Your task to perform on an android device: toggle show notifications on the lock screen Image 0: 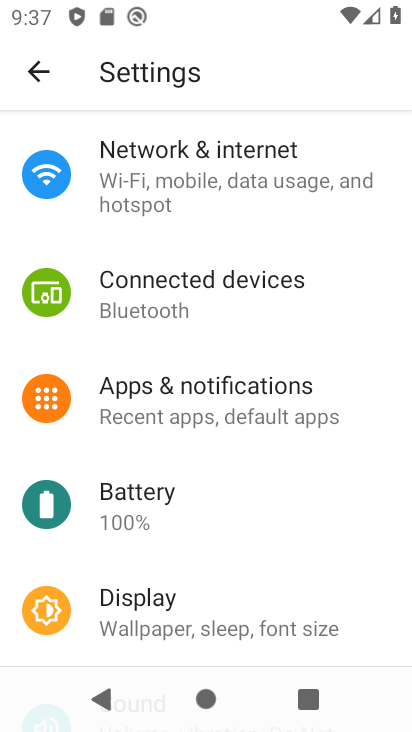
Step 0: click (219, 397)
Your task to perform on an android device: toggle show notifications on the lock screen Image 1: 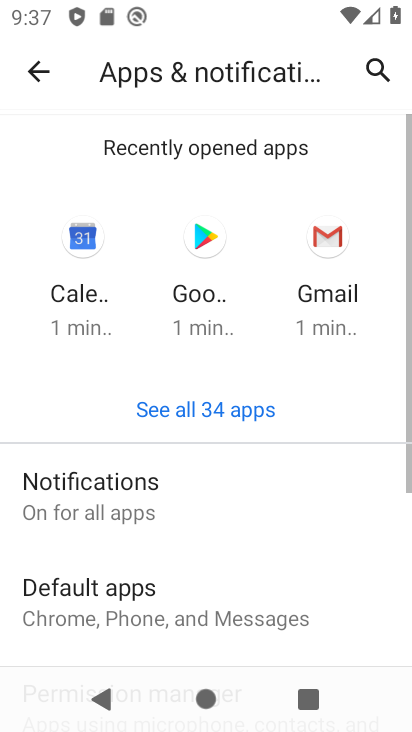
Step 1: drag from (224, 525) to (184, 349)
Your task to perform on an android device: toggle show notifications on the lock screen Image 2: 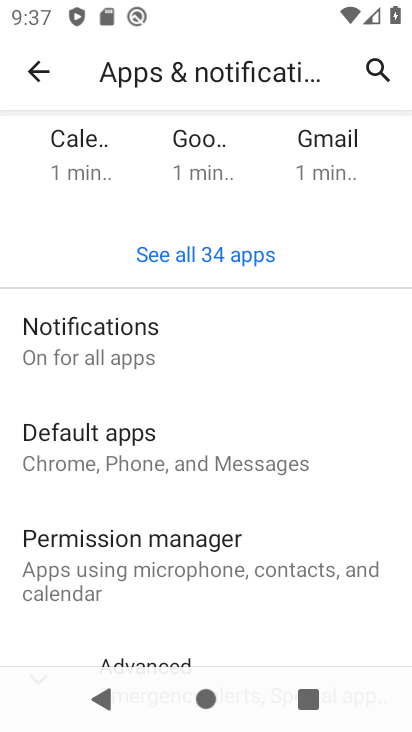
Step 2: click (101, 320)
Your task to perform on an android device: toggle show notifications on the lock screen Image 3: 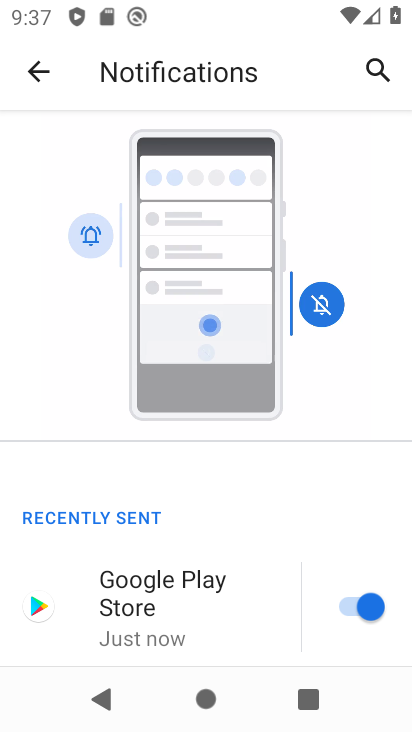
Step 3: drag from (199, 547) to (160, 239)
Your task to perform on an android device: toggle show notifications on the lock screen Image 4: 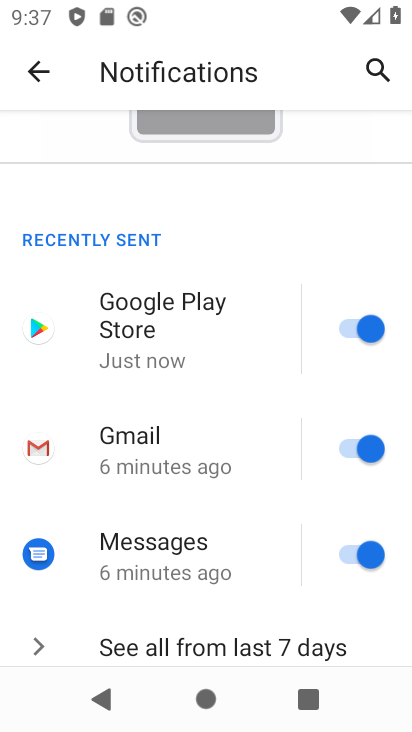
Step 4: drag from (235, 554) to (195, 317)
Your task to perform on an android device: toggle show notifications on the lock screen Image 5: 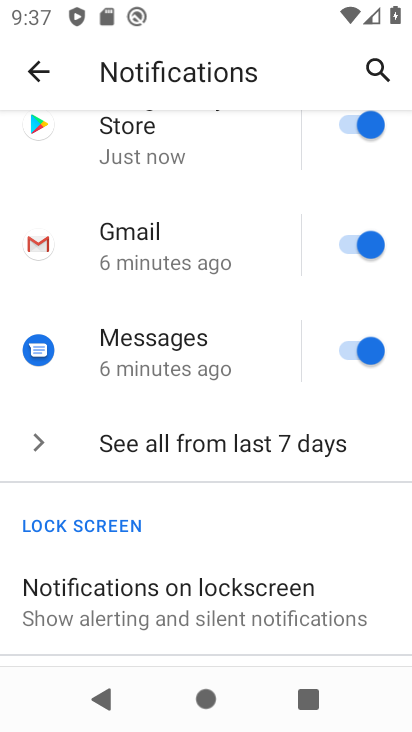
Step 5: click (204, 583)
Your task to perform on an android device: toggle show notifications on the lock screen Image 6: 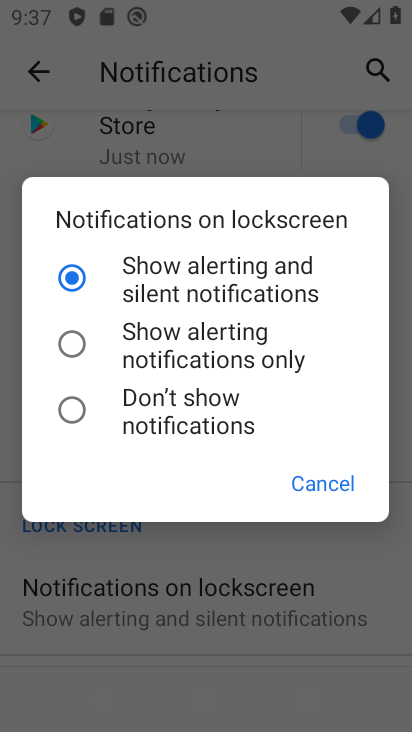
Step 6: click (73, 401)
Your task to perform on an android device: toggle show notifications on the lock screen Image 7: 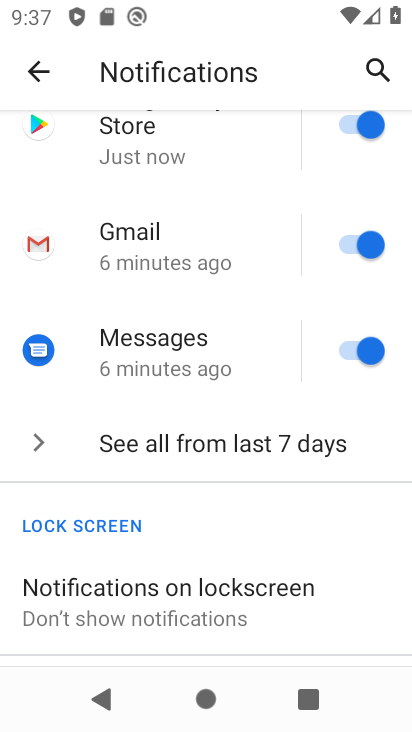
Step 7: task complete